Your task to perform on an android device: change the clock display to digital Image 0: 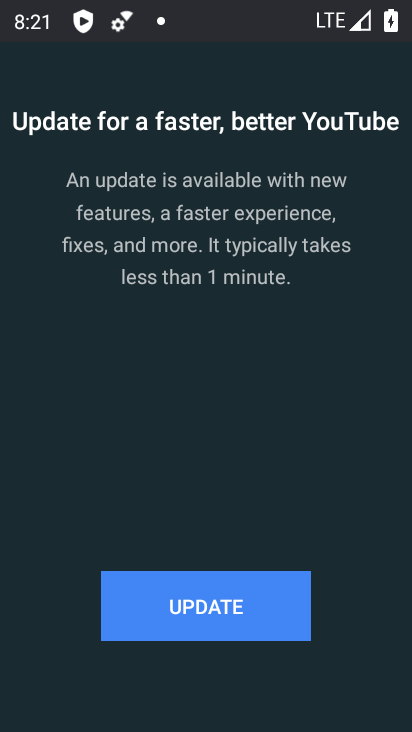
Step 0: press home button
Your task to perform on an android device: change the clock display to digital Image 1: 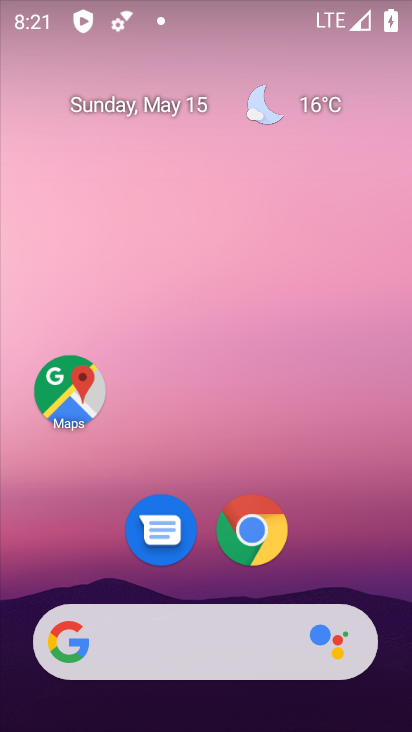
Step 1: drag from (203, 720) to (204, 44)
Your task to perform on an android device: change the clock display to digital Image 2: 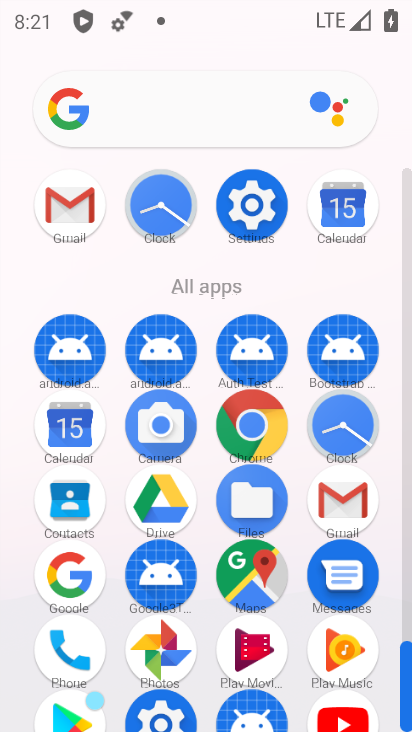
Step 2: click (348, 429)
Your task to perform on an android device: change the clock display to digital Image 3: 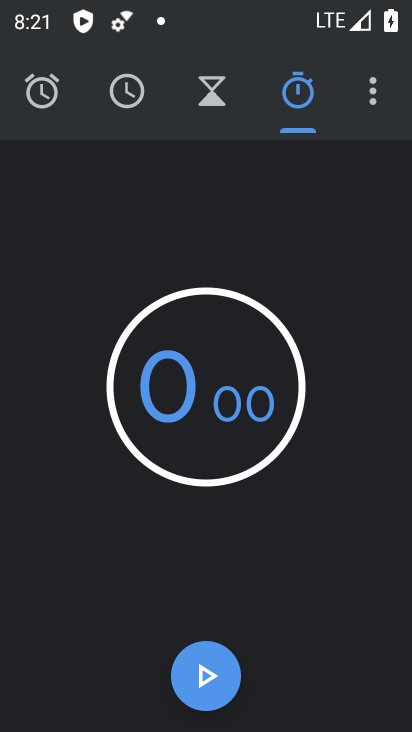
Step 3: click (376, 101)
Your task to perform on an android device: change the clock display to digital Image 4: 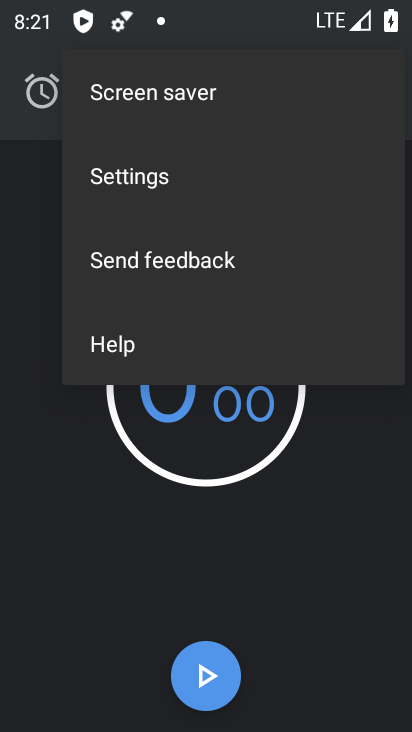
Step 4: click (150, 177)
Your task to perform on an android device: change the clock display to digital Image 5: 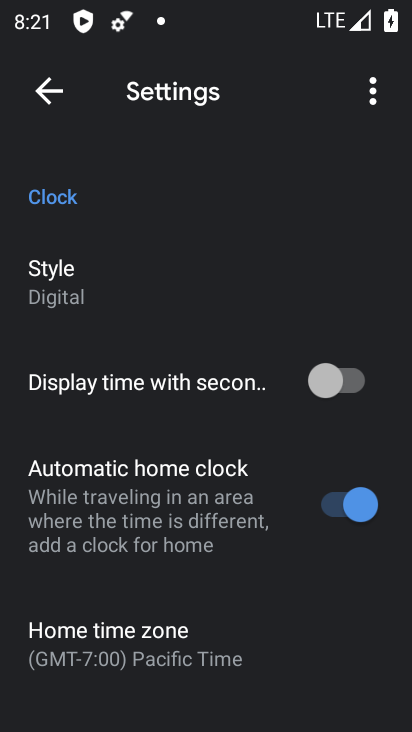
Step 5: task complete